Your task to perform on an android device: Open notification settings Image 0: 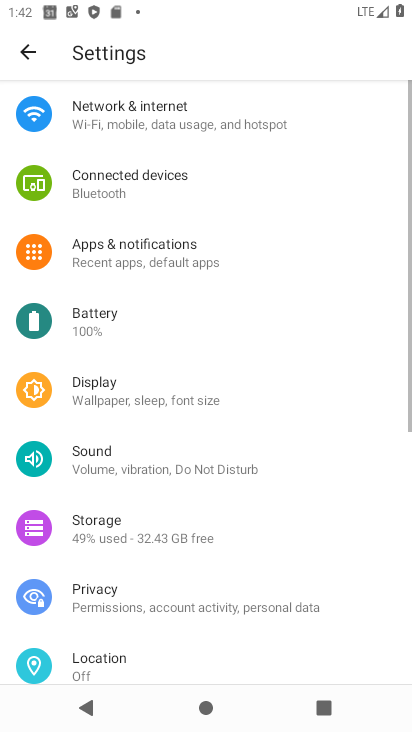
Step 0: press home button
Your task to perform on an android device: Open notification settings Image 1: 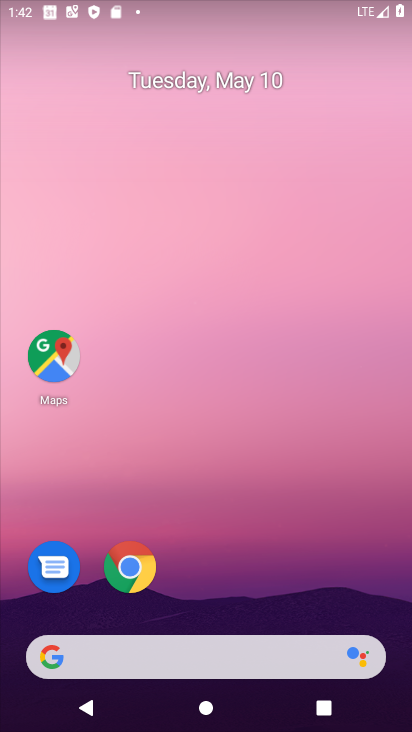
Step 1: drag from (350, 389) to (265, 42)
Your task to perform on an android device: Open notification settings Image 2: 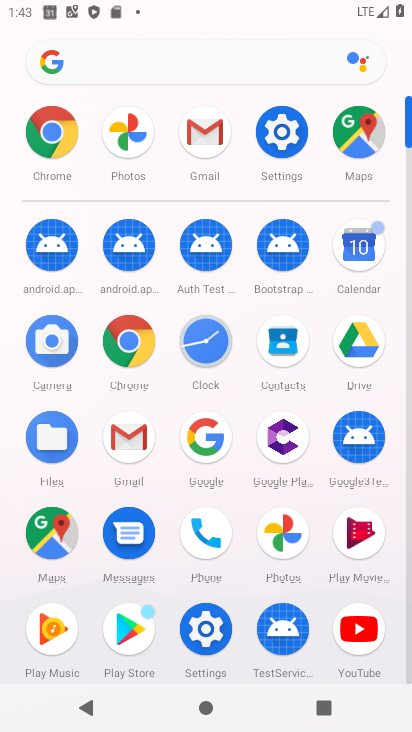
Step 2: click (193, 641)
Your task to perform on an android device: Open notification settings Image 3: 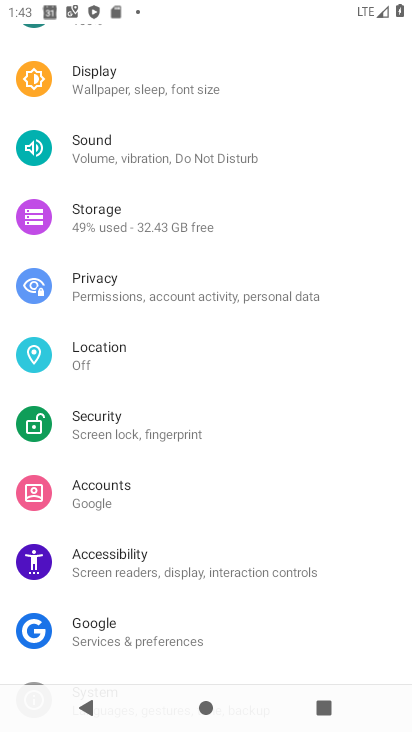
Step 3: drag from (192, 90) to (229, 602)
Your task to perform on an android device: Open notification settings Image 4: 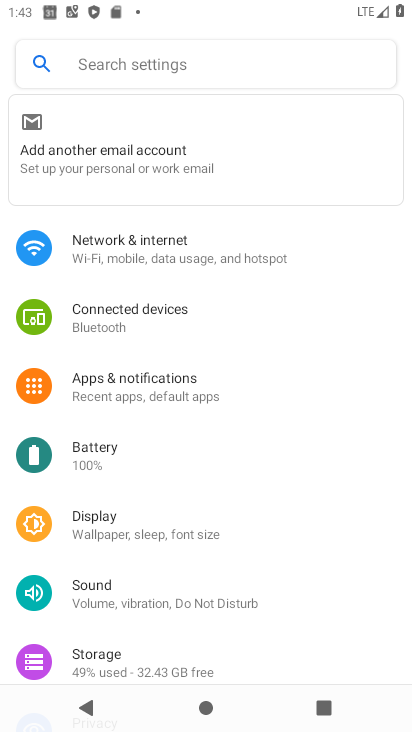
Step 4: click (189, 397)
Your task to perform on an android device: Open notification settings Image 5: 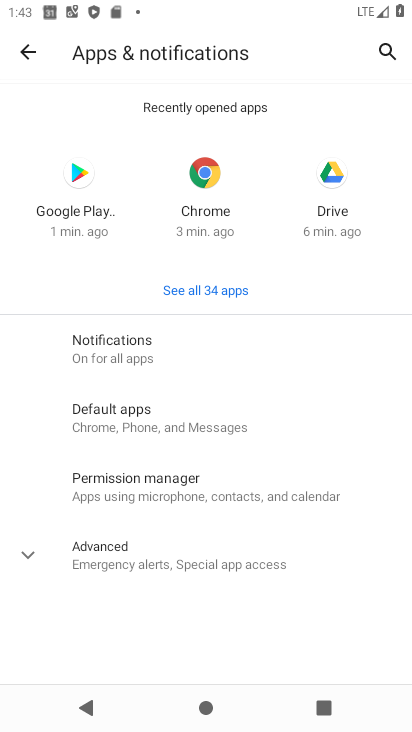
Step 5: click (206, 361)
Your task to perform on an android device: Open notification settings Image 6: 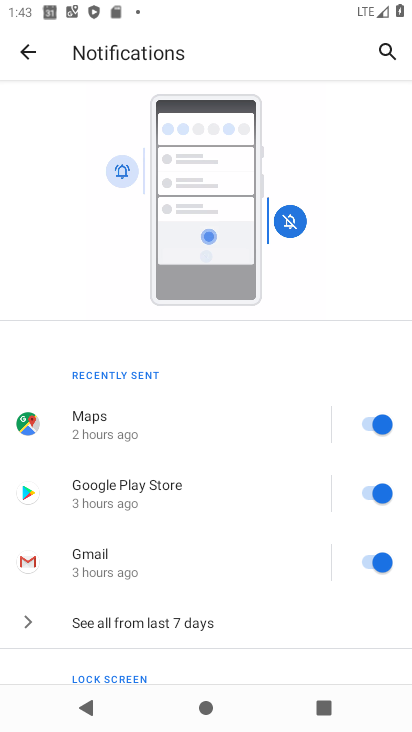
Step 6: task complete